Your task to perform on an android device: change alarm snooze length Image 0: 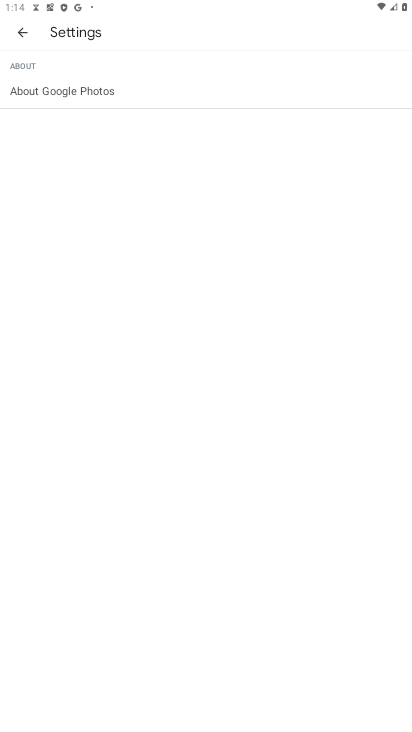
Step 0: click (134, 651)
Your task to perform on an android device: change alarm snooze length Image 1: 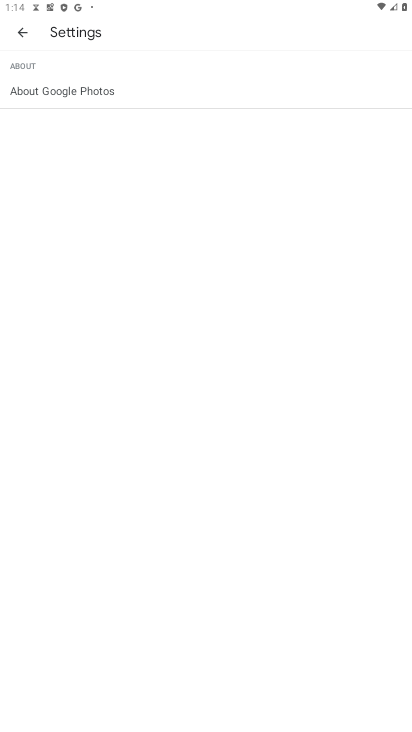
Step 1: click (23, 25)
Your task to perform on an android device: change alarm snooze length Image 2: 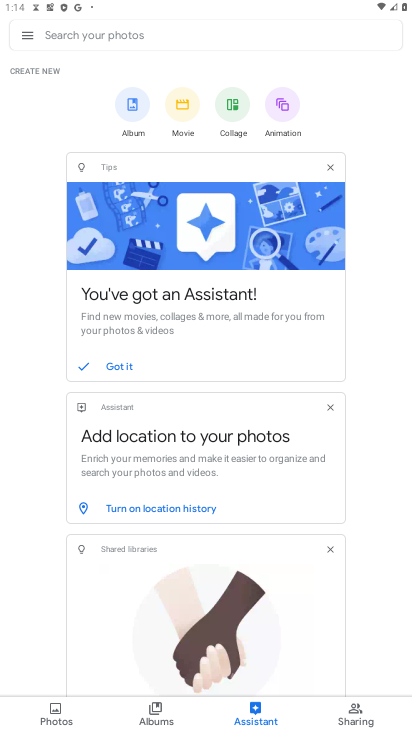
Step 2: press home button
Your task to perform on an android device: change alarm snooze length Image 3: 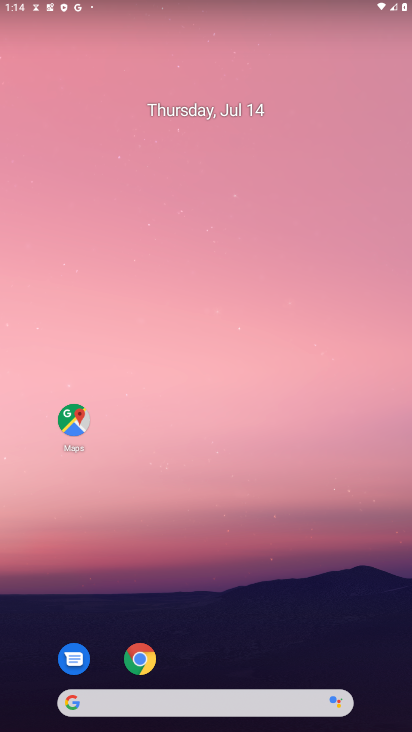
Step 3: drag from (32, 689) to (195, 249)
Your task to perform on an android device: change alarm snooze length Image 4: 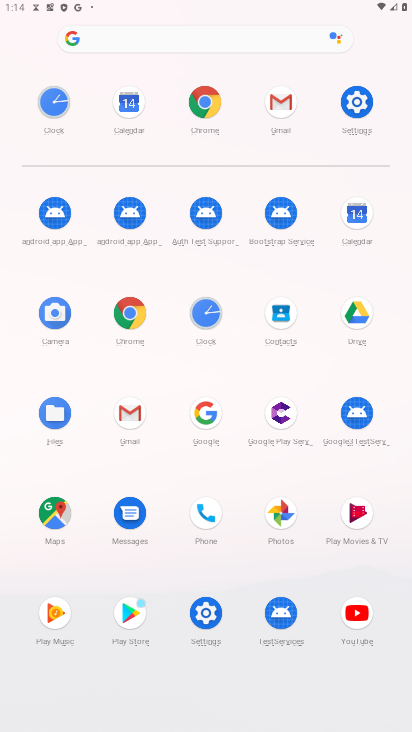
Step 4: click (196, 308)
Your task to perform on an android device: change alarm snooze length Image 5: 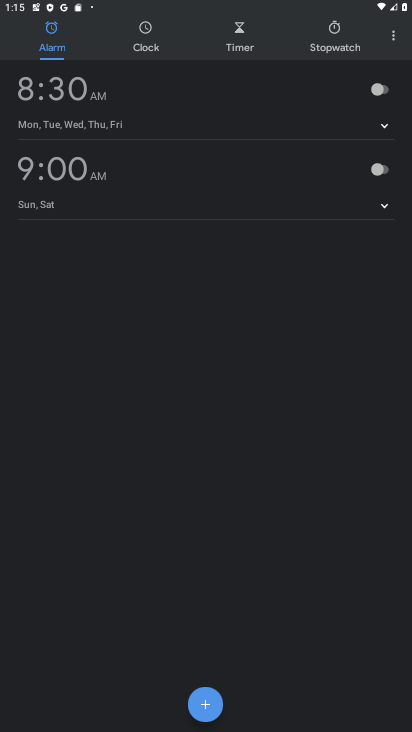
Step 5: click (397, 34)
Your task to perform on an android device: change alarm snooze length Image 6: 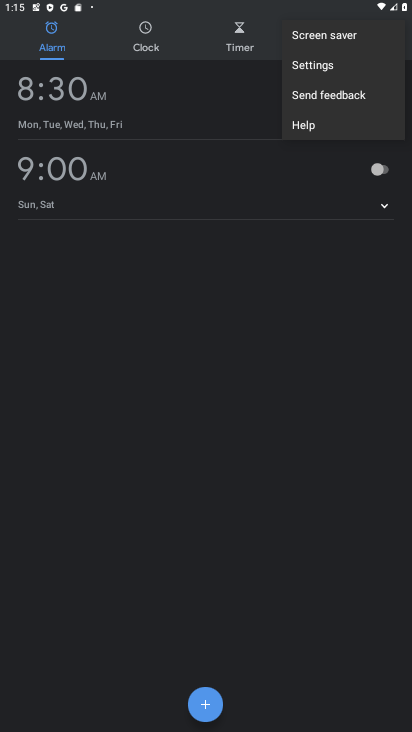
Step 6: click (310, 68)
Your task to perform on an android device: change alarm snooze length Image 7: 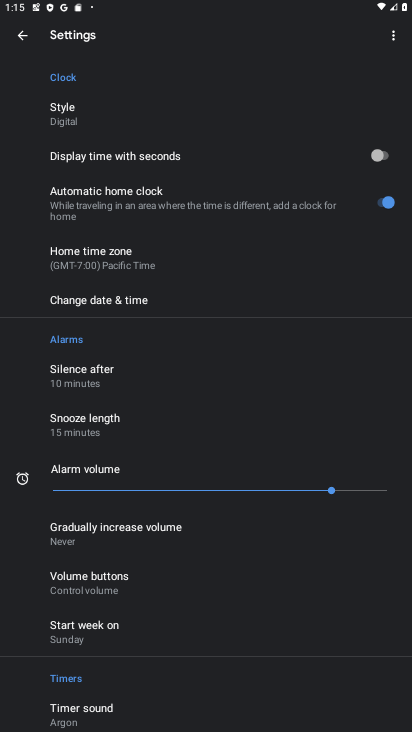
Step 7: click (81, 426)
Your task to perform on an android device: change alarm snooze length Image 8: 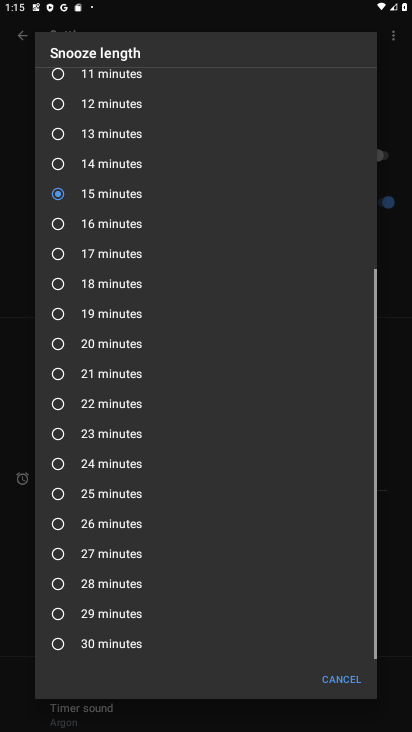
Step 8: click (110, 299)
Your task to perform on an android device: change alarm snooze length Image 9: 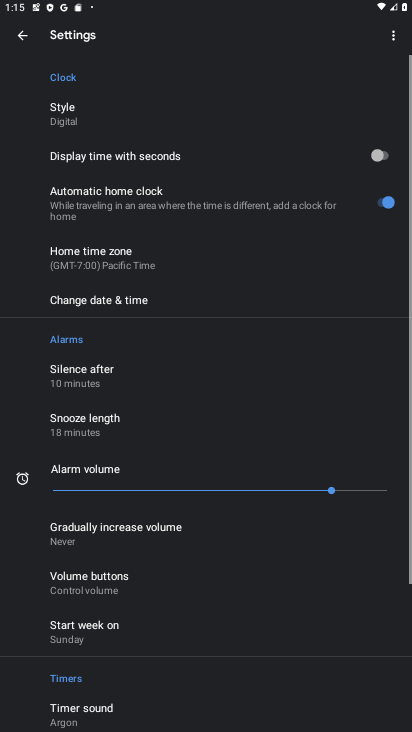
Step 9: click (95, 278)
Your task to perform on an android device: change alarm snooze length Image 10: 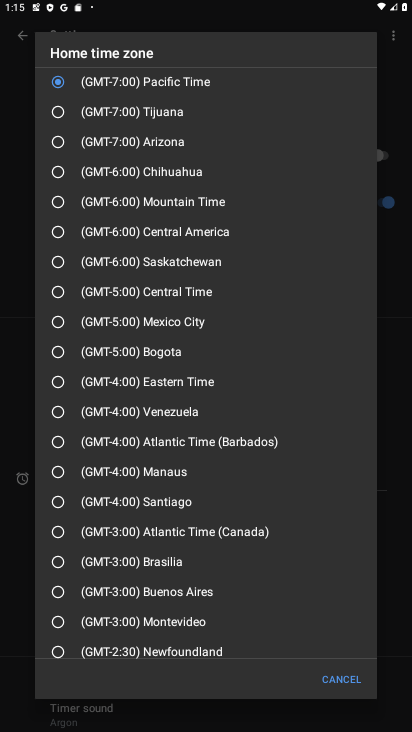
Step 10: click (333, 680)
Your task to perform on an android device: change alarm snooze length Image 11: 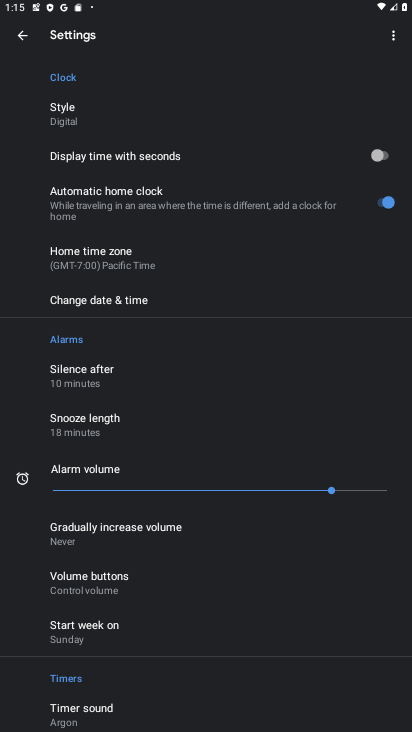
Step 11: task complete